Your task to perform on an android device: Open Amazon Image 0: 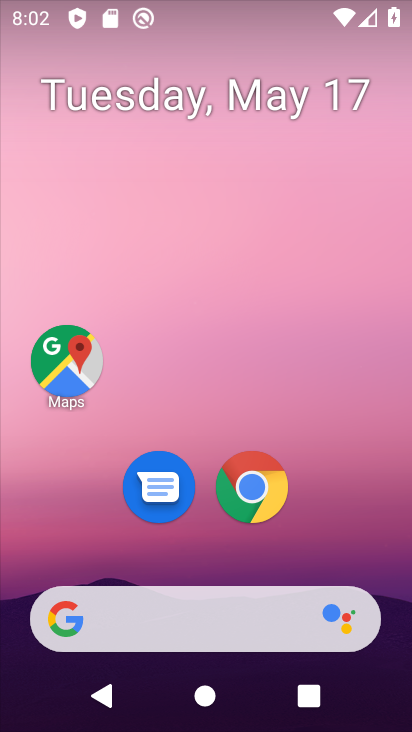
Step 0: drag from (235, 641) to (194, 58)
Your task to perform on an android device: Open Amazon Image 1: 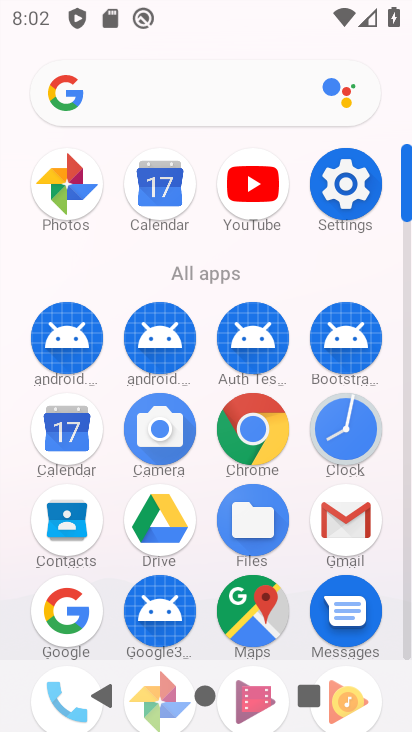
Step 1: click (238, 420)
Your task to perform on an android device: Open Amazon Image 2: 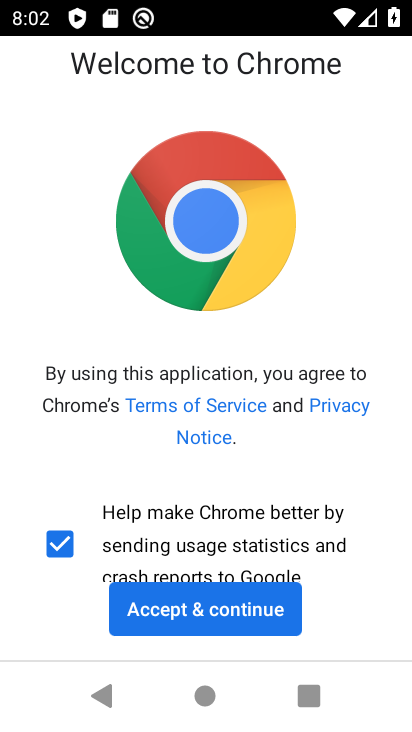
Step 2: click (247, 603)
Your task to perform on an android device: Open Amazon Image 3: 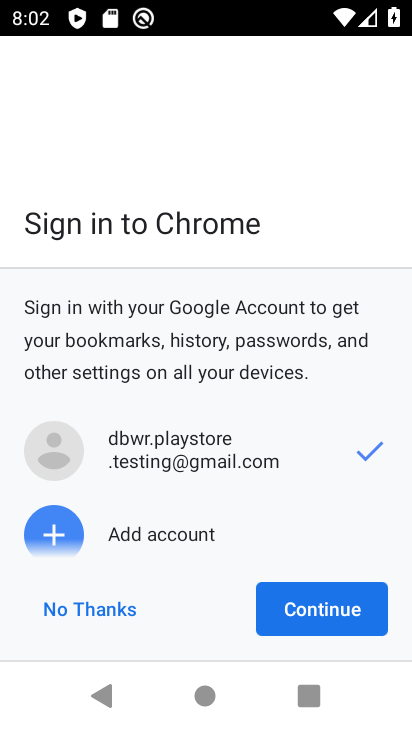
Step 3: click (319, 615)
Your task to perform on an android device: Open Amazon Image 4: 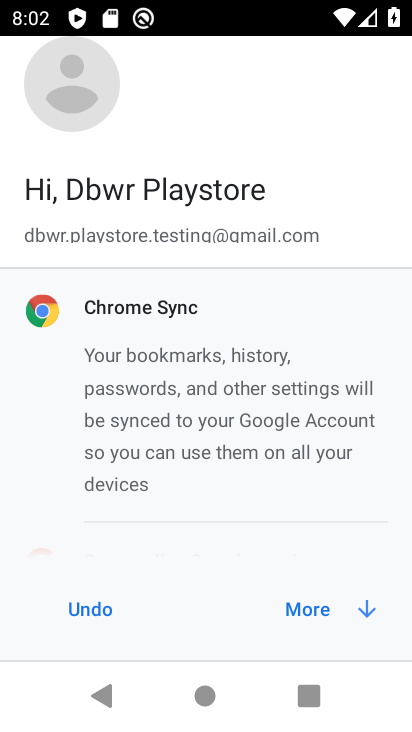
Step 4: click (330, 610)
Your task to perform on an android device: Open Amazon Image 5: 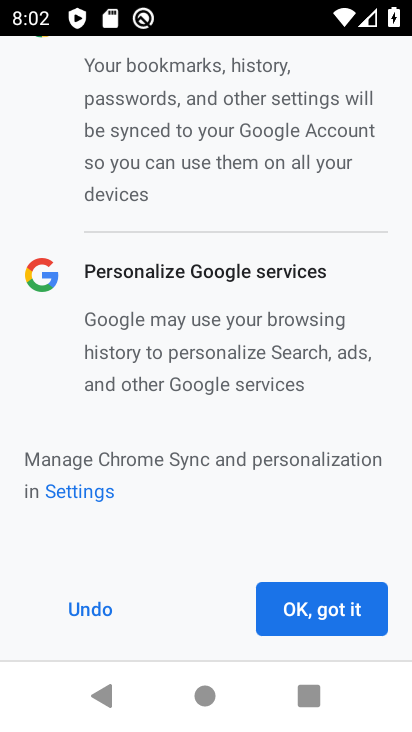
Step 5: click (331, 608)
Your task to perform on an android device: Open Amazon Image 6: 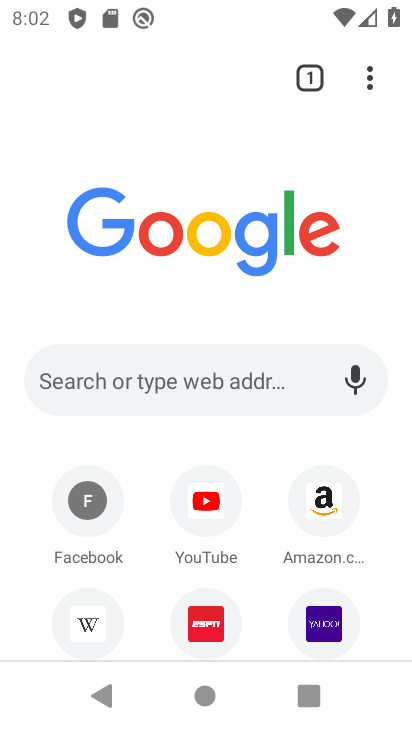
Step 6: click (294, 493)
Your task to perform on an android device: Open Amazon Image 7: 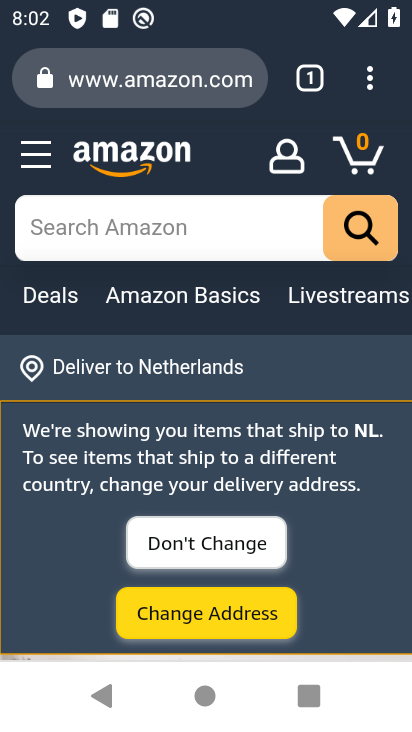
Step 7: task complete